Your task to perform on an android device: open app "McDonald's" Image 0: 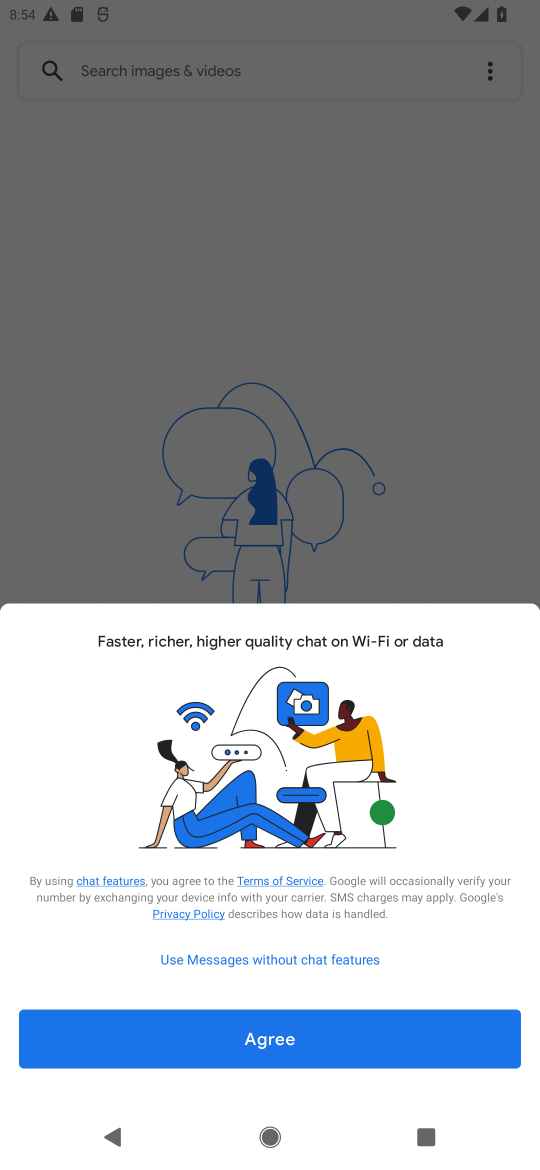
Step 0: press home button
Your task to perform on an android device: open app "McDonald's" Image 1: 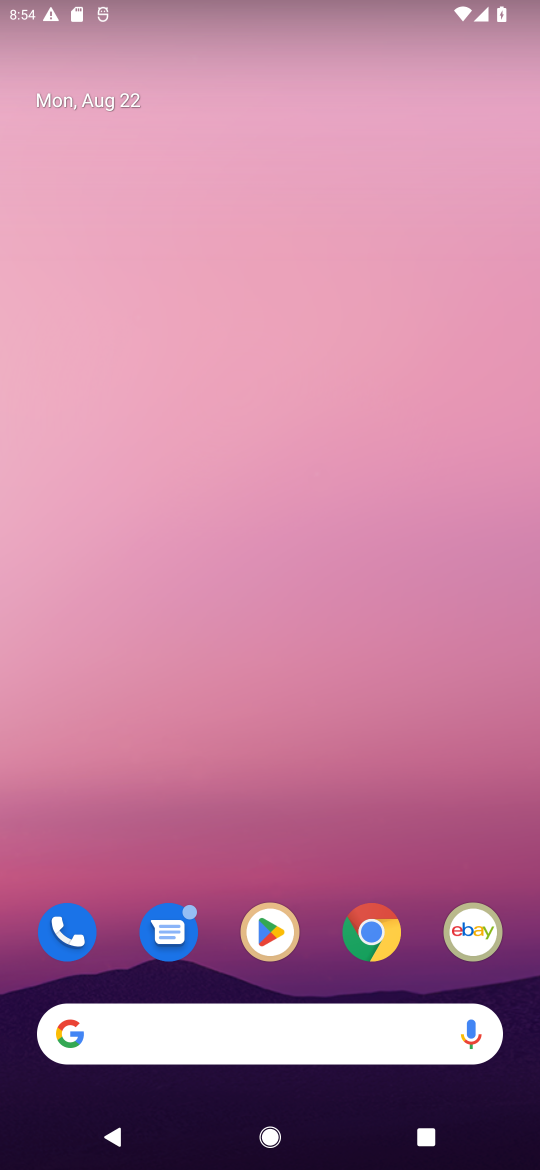
Step 1: click (252, 931)
Your task to perform on an android device: open app "McDonald's" Image 2: 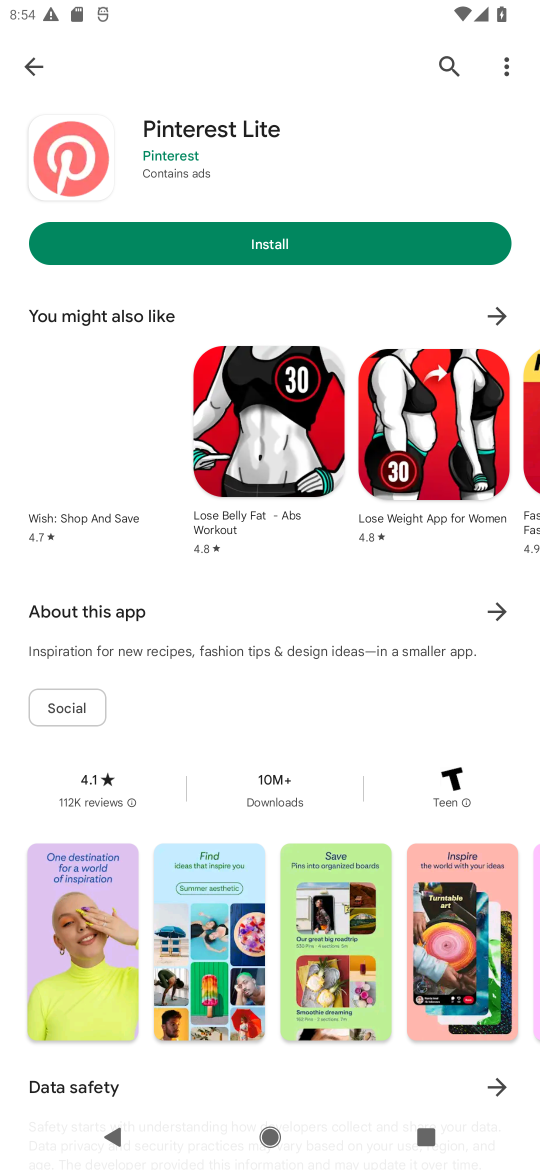
Step 2: click (391, 216)
Your task to perform on an android device: open app "McDonald's" Image 3: 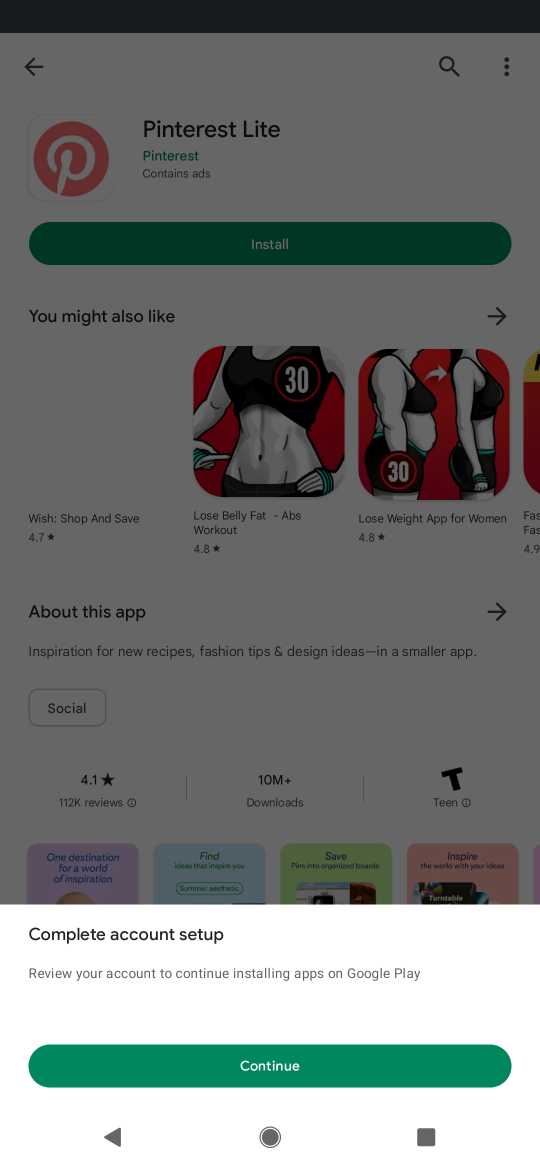
Step 3: click (195, 1043)
Your task to perform on an android device: open app "McDonald's" Image 4: 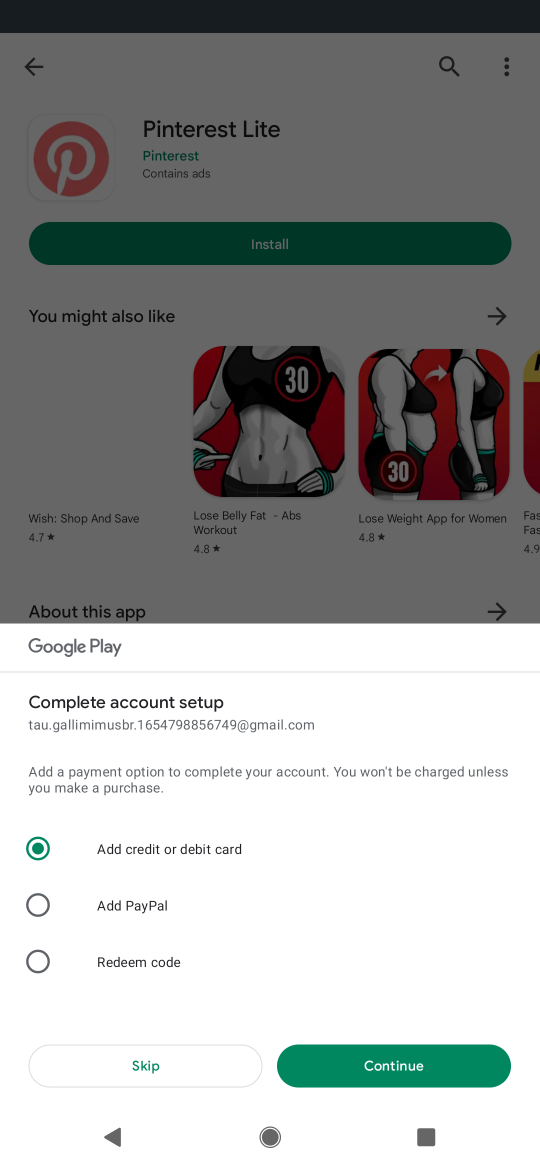
Step 4: click (192, 1048)
Your task to perform on an android device: open app "McDonald's" Image 5: 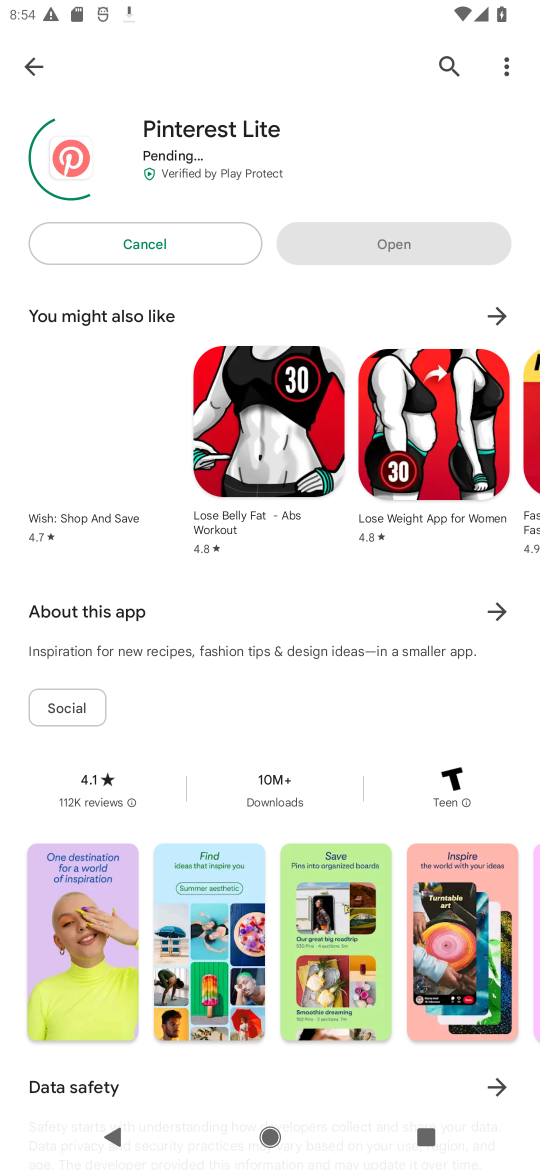
Step 5: click (416, 61)
Your task to perform on an android device: open app "McDonald's" Image 6: 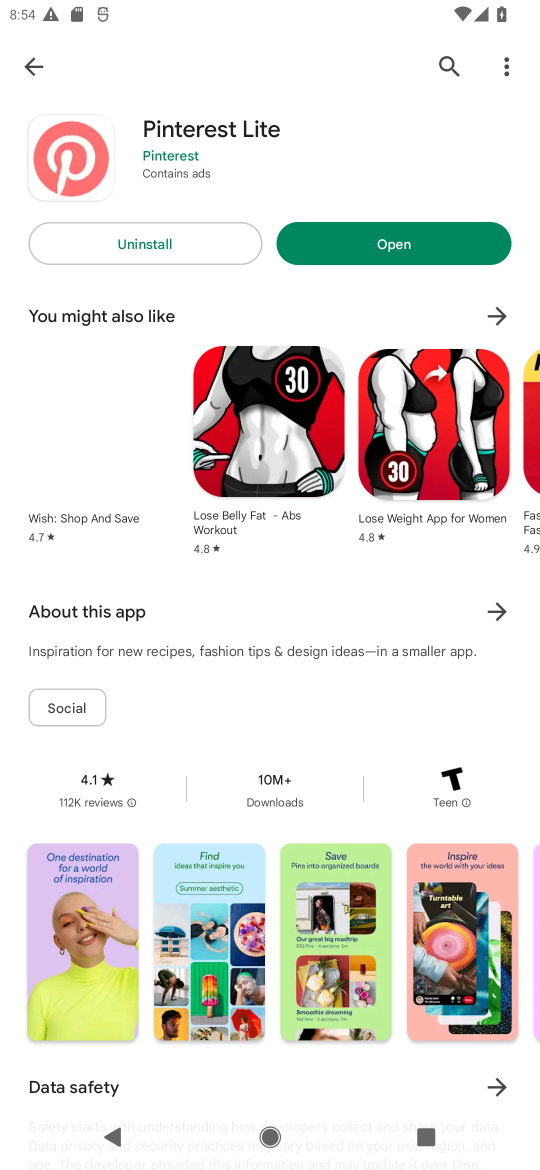
Step 6: click (462, 75)
Your task to perform on an android device: open app "McDonald's" Image 7: 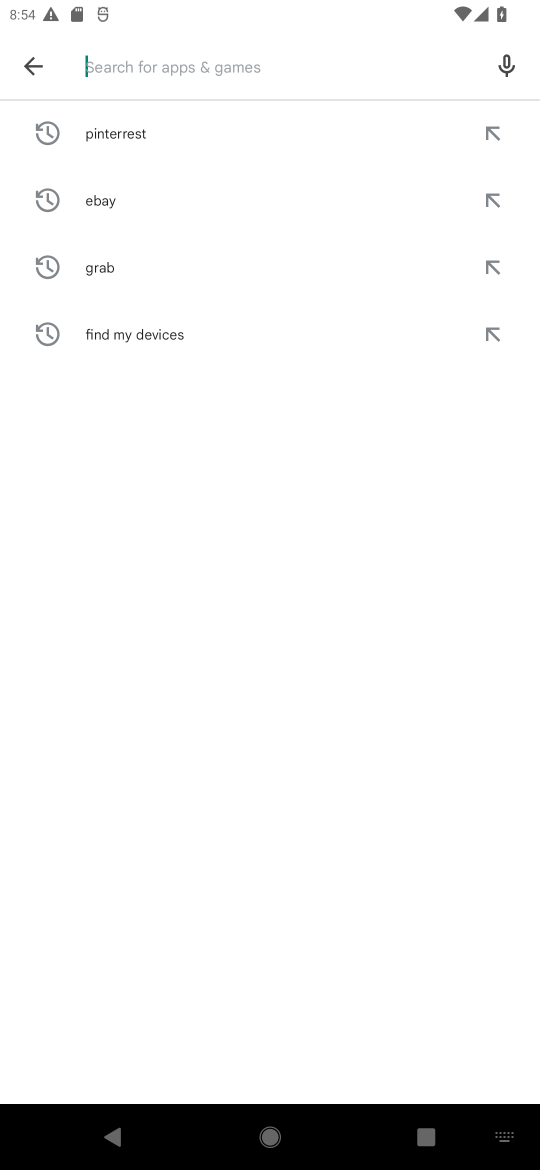
Step 7: type "mcdoland"
Your task to perform on an android device: open app "McDonald's" Image 8: 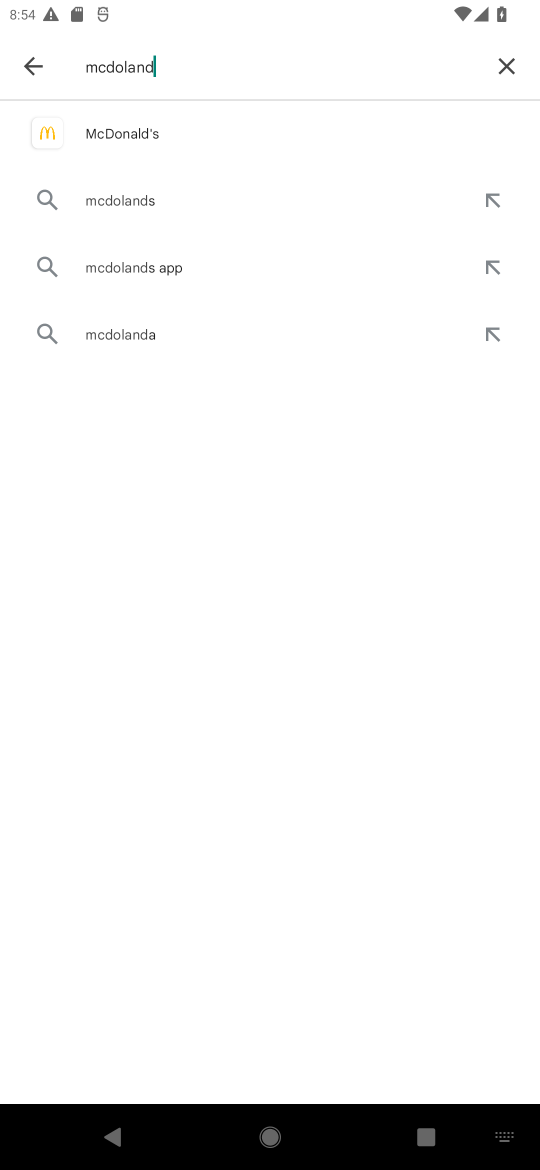
Step 8: click (178, 127)
Your task to perform on an android device: open app "McDonald's" Image 9: 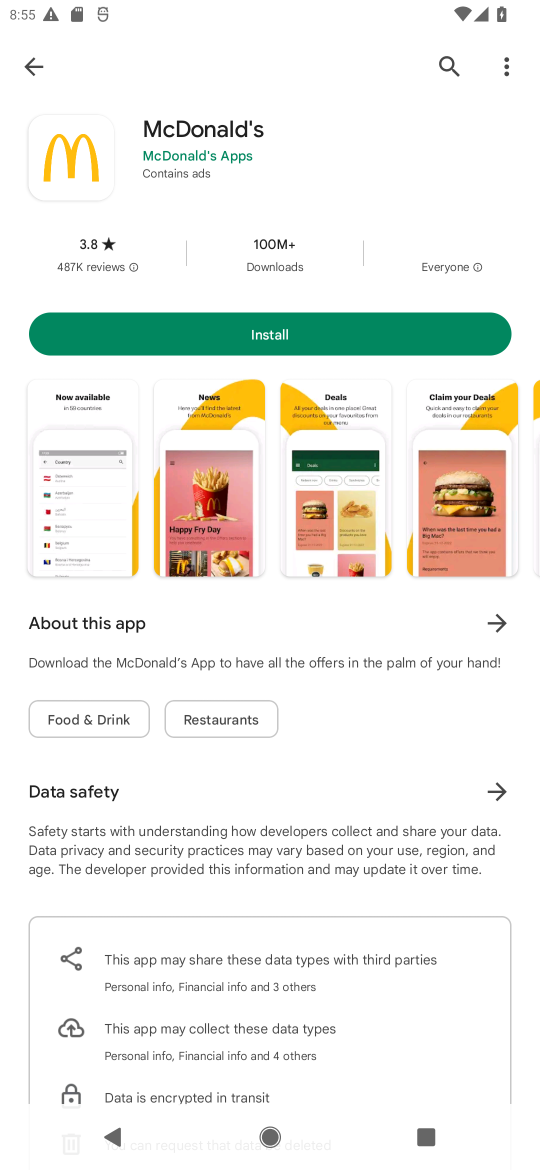
Step 9: task complete